Your task to perform on an android device: turn smart compose on in the gmail app Image 0: 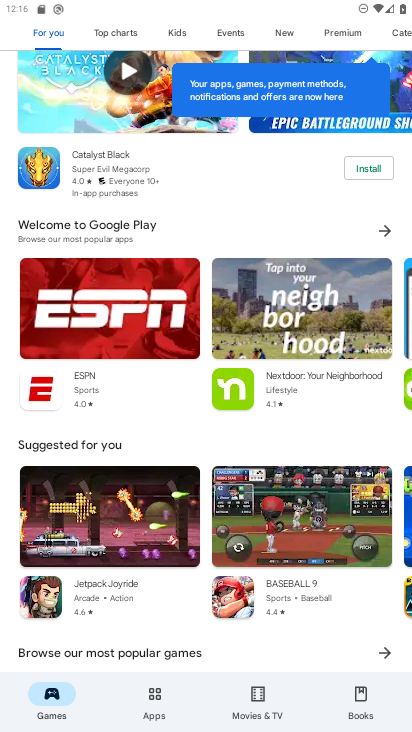
Step 0: press home button
Your task to perform on an android device: turn smart compose on in the gmail app Image 1: 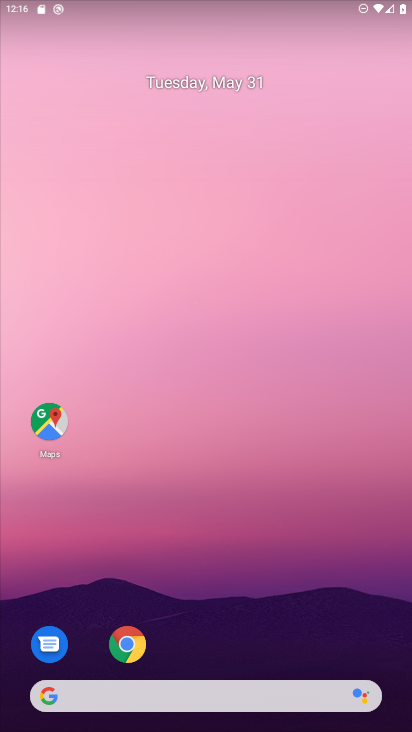
Step 1: drag from (157, 655) to (244, 71)
Your task to perform on an android device: turn smart compose on in the gmail app Image 2: 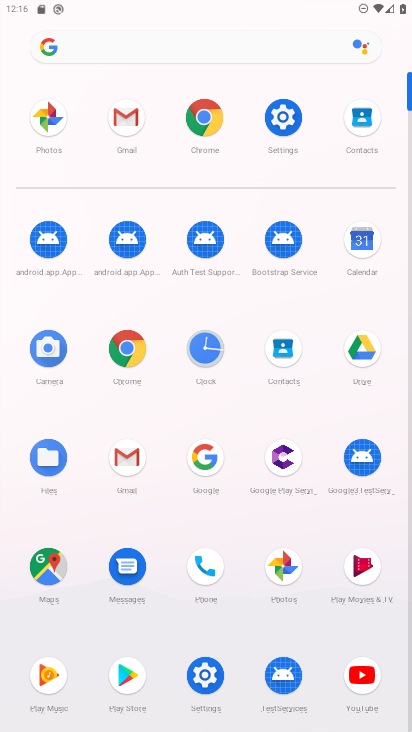
Step 2: click (124, 443)
Your task to perform on an android device: turn smart compose on in the gmail app Image 3: 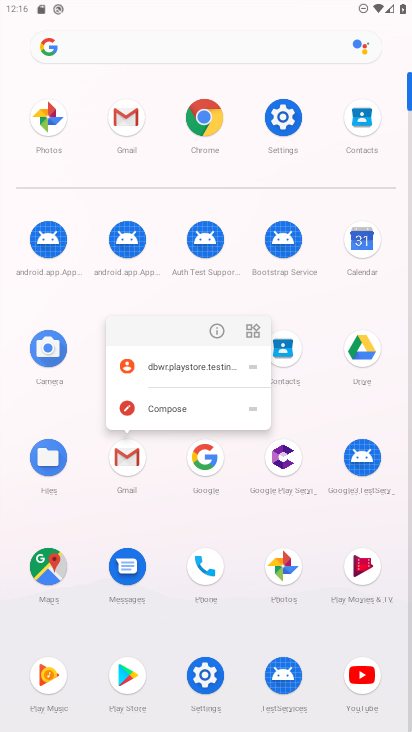
Step 3: click (217, 334)
Your task to perform on an android device: turn smart compose on in the gmail app Image 4: 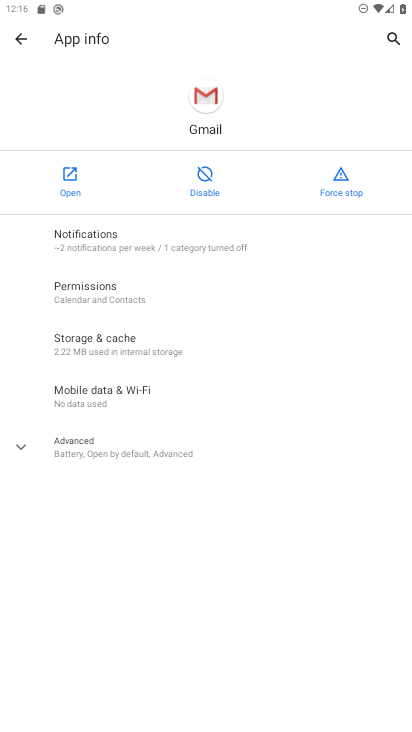
Step 4: click (71, 183)
Your task to perform on an android device: turn smart compose on in the gmail app Image 5: 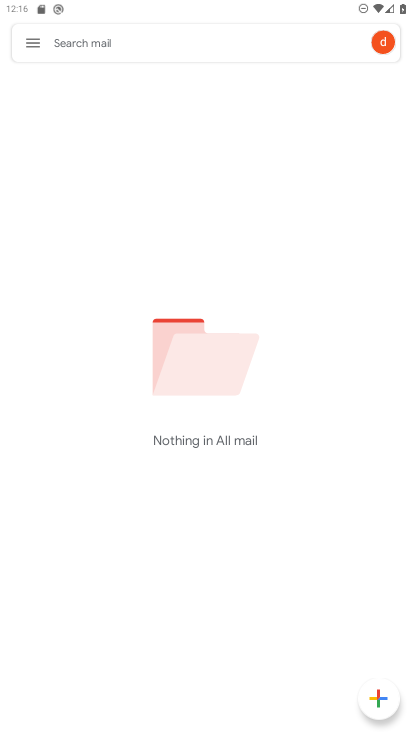
Step 5: click (21, 37)
Your task to perform on an android device: turn smart compose on in the gmail app Image 6: 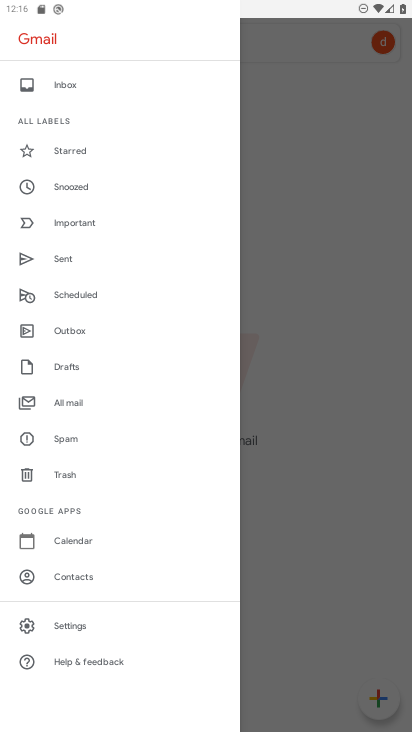
Step 6: click (87, 622)
Your task to perform on an android device: turn smart compose on in the gmail app Image 7: 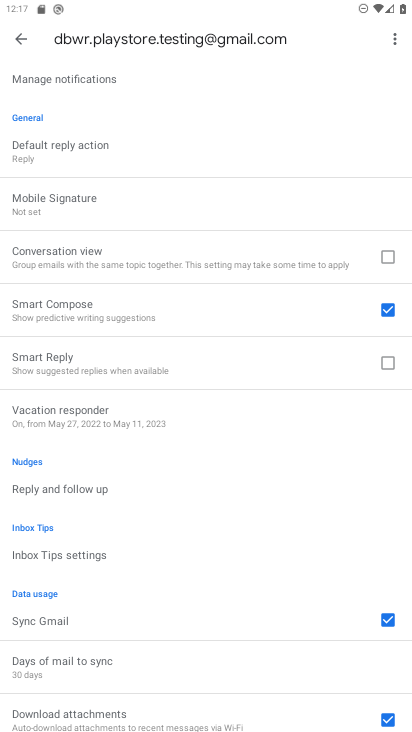
Step 7: task complete